Your task to perform on an android device: delete the emails in spam in the gmail app Image 0: 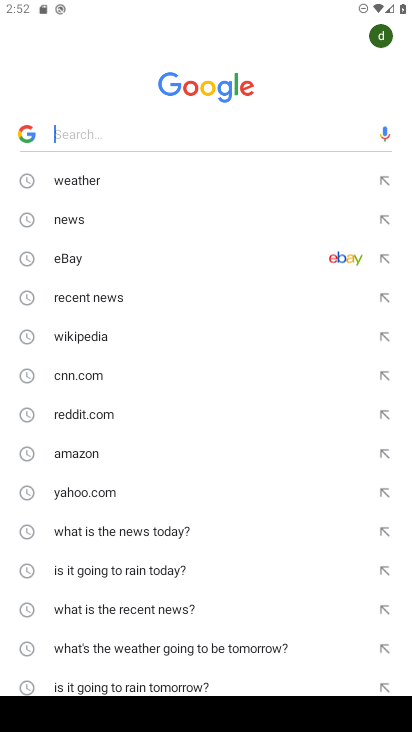
Step 0: press home button
Your task to perform on an android device: delete the emails in spam in the gmail app Image 1: 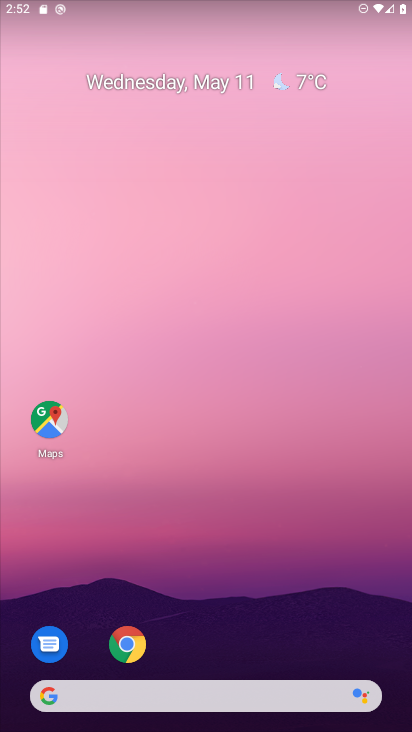
Step 1: drag from (195, 652) to (249, 184)
Your task to perform on an android device: delete the emails in spam in the gmail app Image 2: 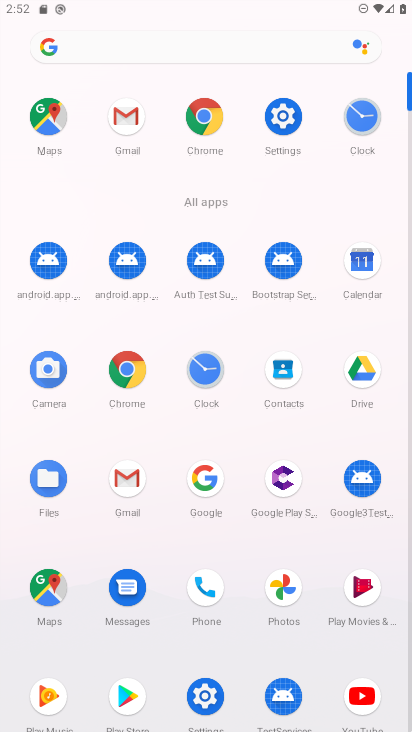
Step 2: click (126, 121)
Your task to perform on an android device: delete the emails in spam in the gmail app Image 3: 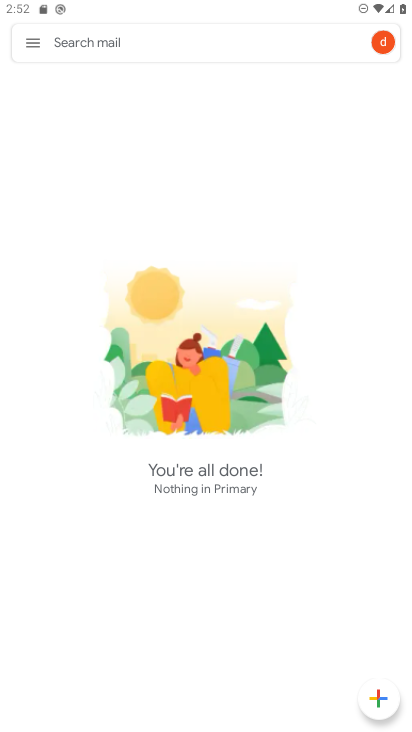
Step 3: click (32, 40)
Your task to perform on an android device: delete the emails in spam in the gmail app Image 4: 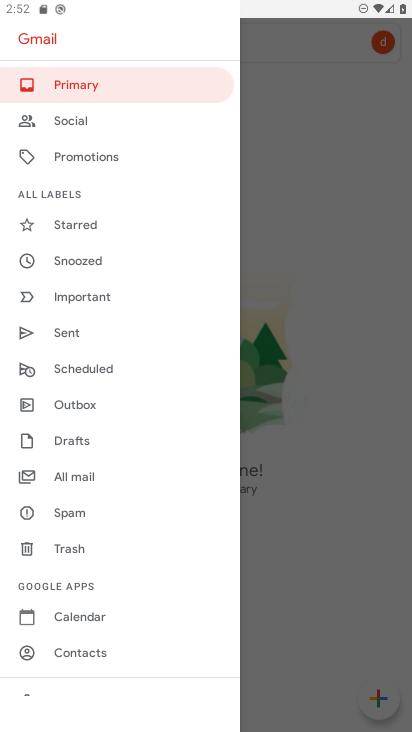
Step 4: drag from (110, 652) to (128, 341)
Your task to perform on an android device: delete the emails in spam in the gmail app Image 5: 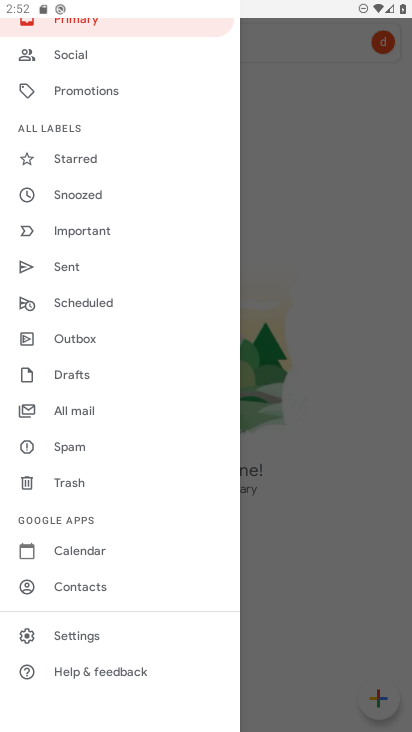
Step 5: click (80, 447)
Your task to perform on an android device: delete the emails in spam in the gmail app Image 6: 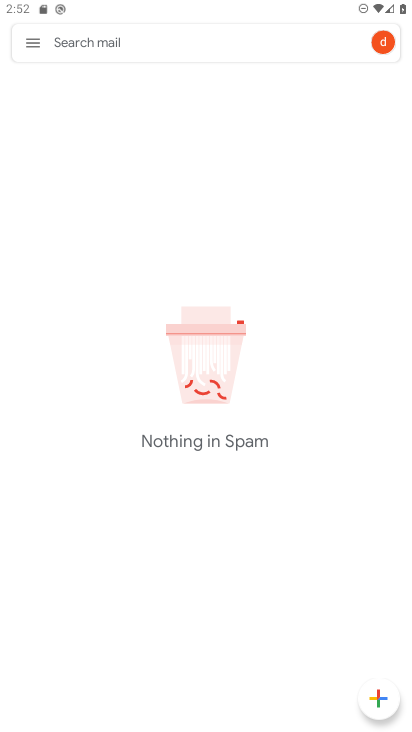
Step 6: task complete